Your task to perform on an android device: turn off translation in the chrome app Image 0: 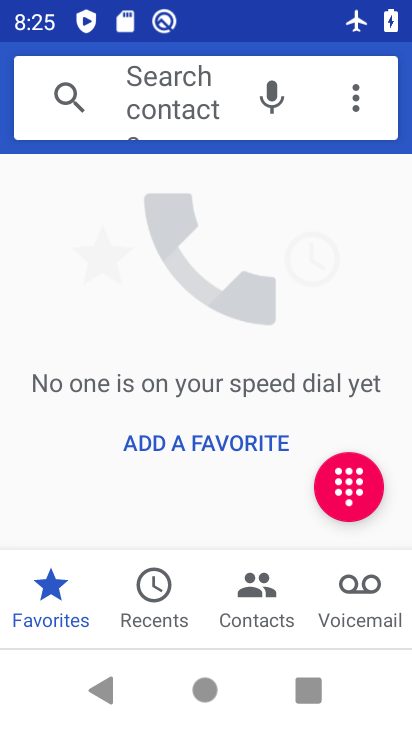
Step 0: press home button
Your task to perform on an android device: turn off translation in the chrome app Image 1: 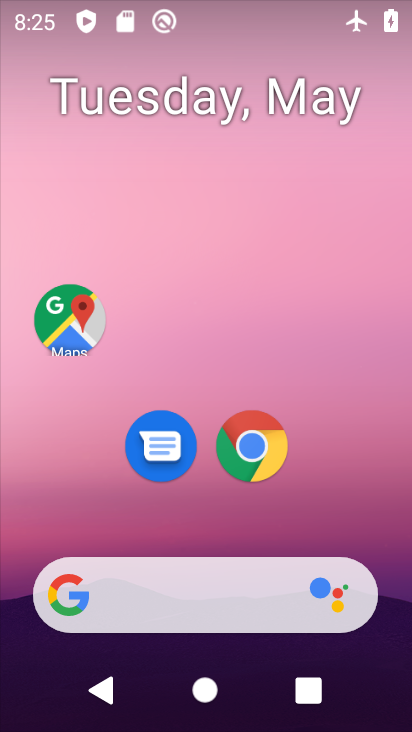
Step 1: drag from (377, 535) to (377, 220)
Your task to perform on an android device: turn off translation in the chrome app Image 2: 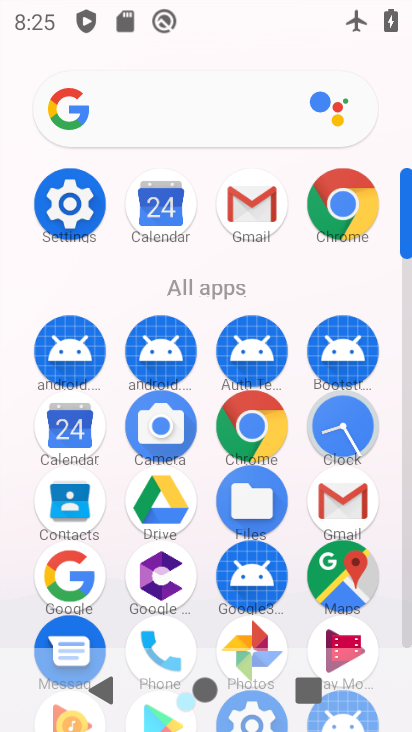
Step 2: click (247, 443)
Your task to perform on an android device: turn off translation in the chrome app Image 3: 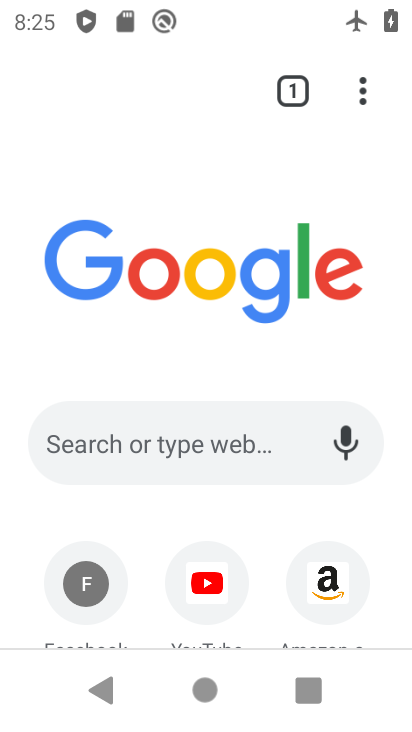
Step 3: click (360, 99)
Your task to perform on an android device: turn off translation in the chrome app Image 4: 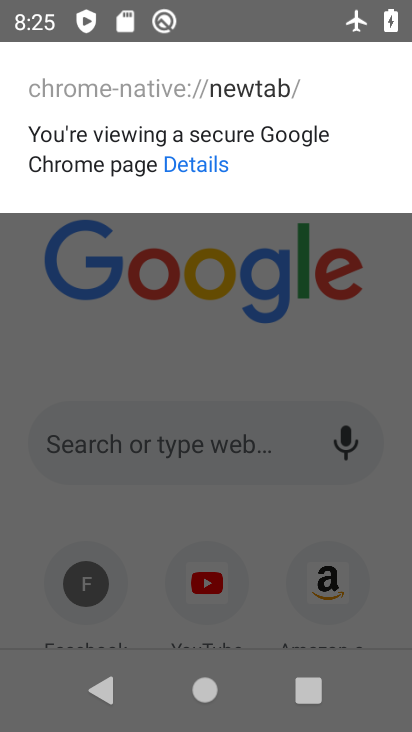
Step 4: click (394, 324)
Your task to perform on an android device: turn off translation in the chrome app Image 5: 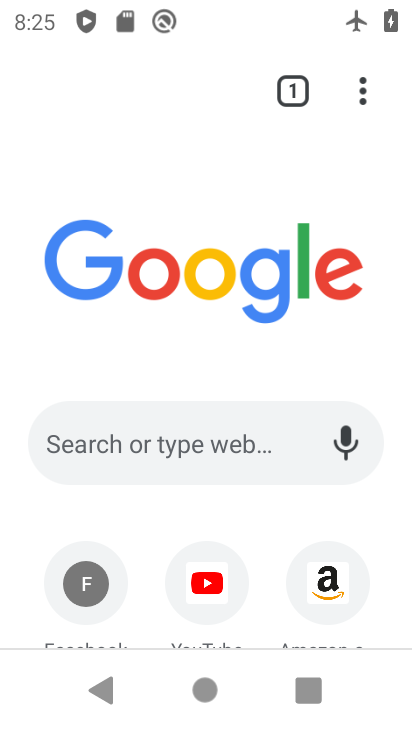
Step 5: click (363, 93)
Your task to perform on an android device: turn off translation in the chrome app Image 6: 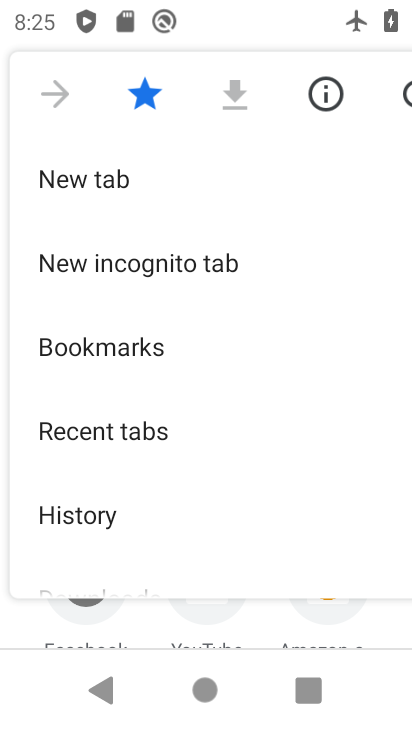
Step 6: drag from (281, 527) to (309, 408)
Your task to perform on an android device: turn off translation in the chrome app Image 7: 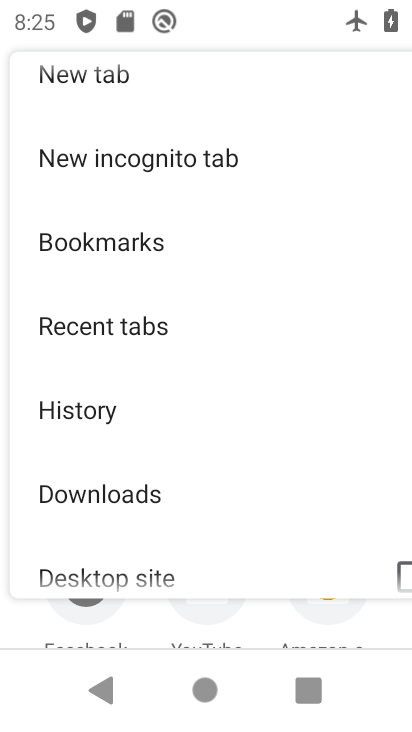
Step 7: drag from (313, 495) to (328, 371)
Your task to perform on an android device: turn off translation in the chrome app Image 8: 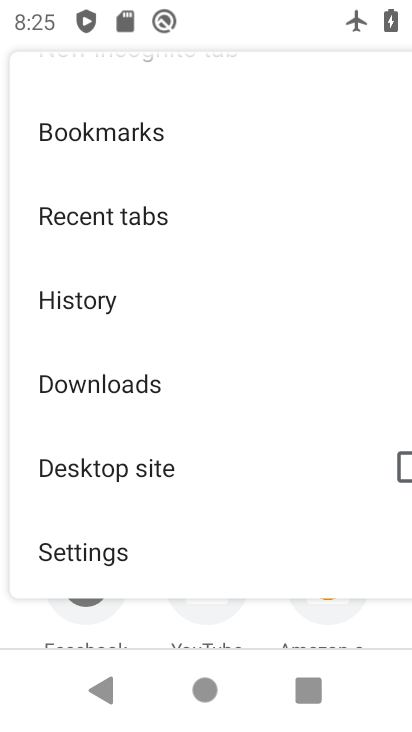
Step 8: drag from (314, 500) to (309, 396)
Your task to perform on an android device: turn off translation in the chrome app Image 9: 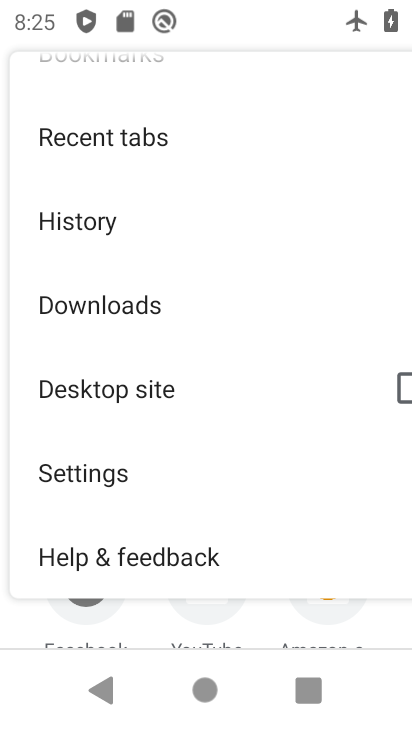
Step 9: drag from (302, 480) to (313, 394)
Your task to perform on an android device: turn off translation in the chrome app Image 10: 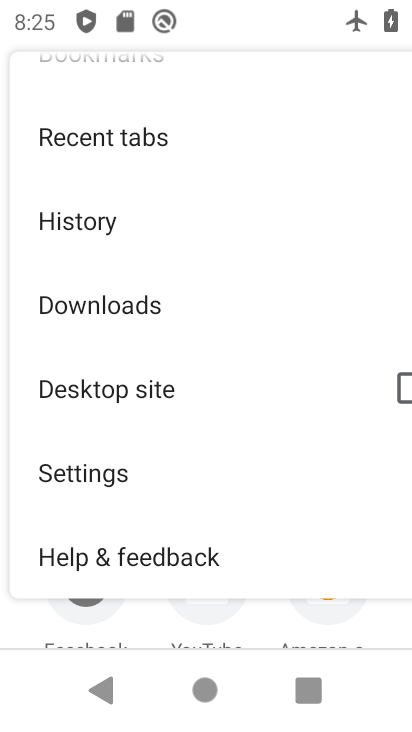
Step 10: click (224, 481)
Your task to perform on an android device: turn off translation in the chrome app Image 11: 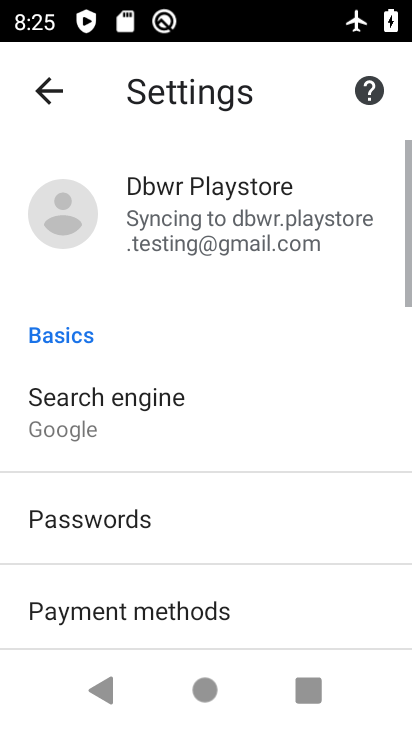
Step 11: drag from (321, 543) to (343, 412)
Your task to perform on an android device: turn off translation in the chrome app Image 12: 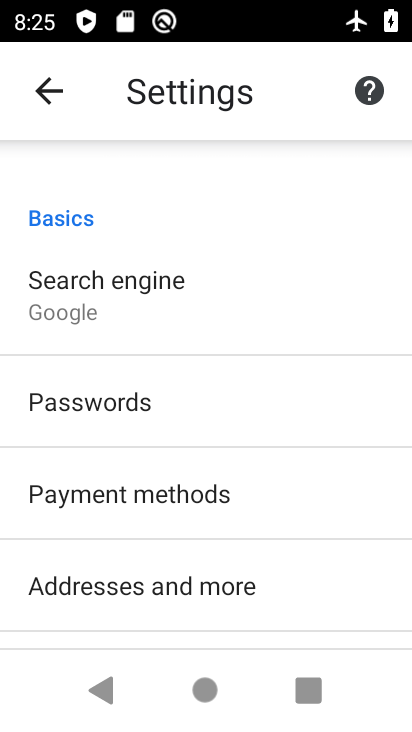
Step 12: drag from (321, 557) to (334, 435)
Your task to perform on an android device: turn off translation in the chrome app Image 13: 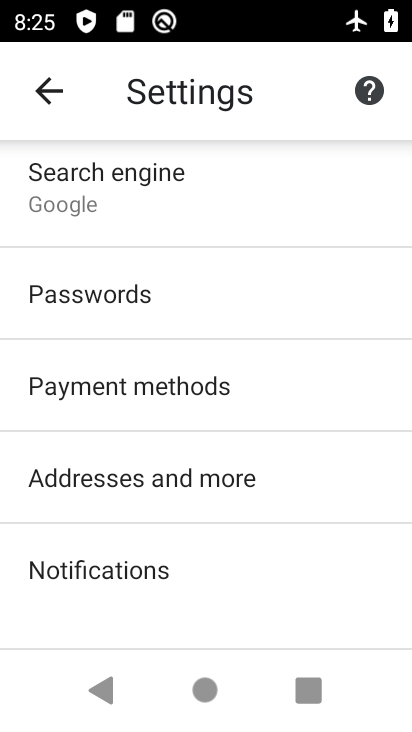
Step 13: drag from (329, 595) to (330, 472)
Your task to perform on an android device: turn off translation in the chrome app Image 14: 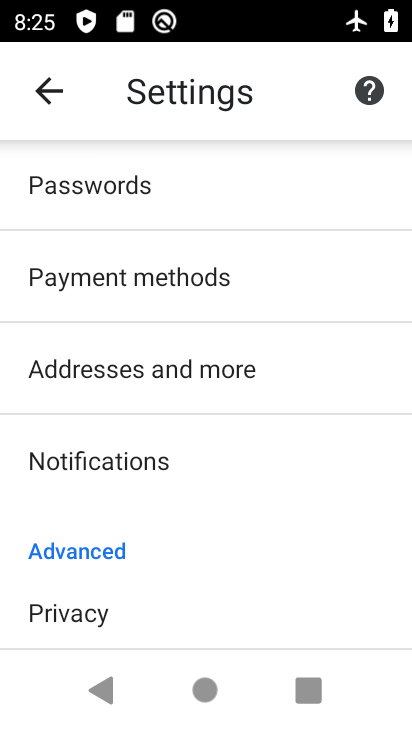
Step 14: drag from (330, 586) to (344, 483)
Your task to perform on an android device: turn off translation in the chrome app Image 15: 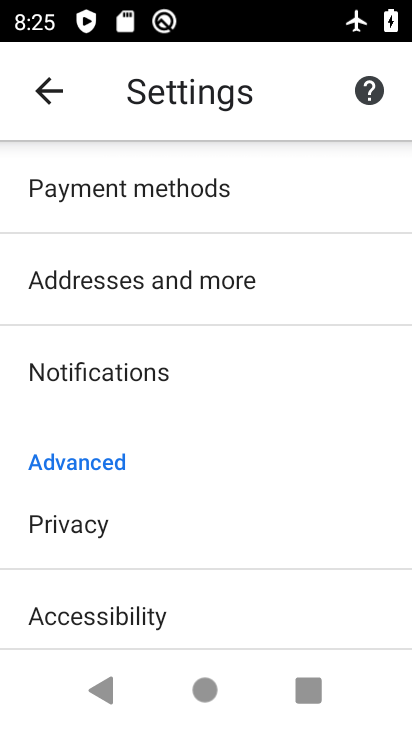
Step 15: drag from (365, 603) to (366, 497)
Your task to perform on an android device: turn off translation in the chrome app Image 16: 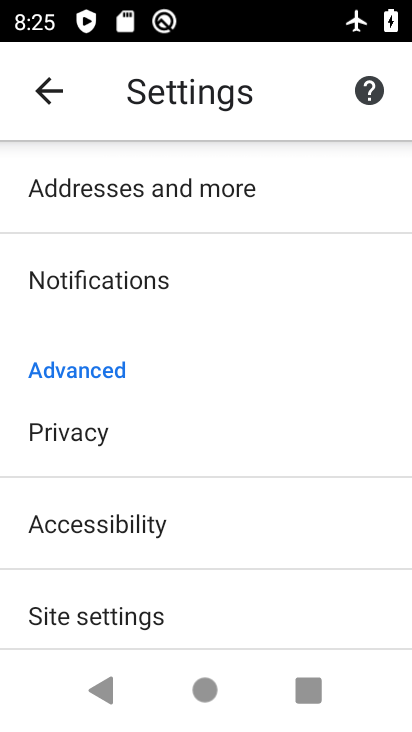
Step 16: drag from (349, 622) to (355, 511)
Your task to perform on an android device: turn off translation in the chrome app Image 17: 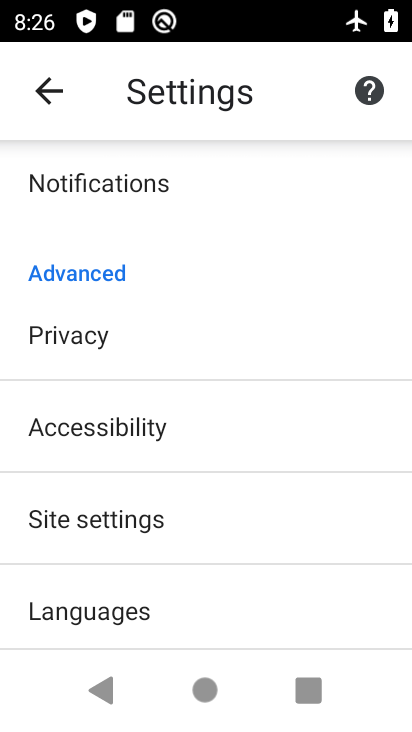
Step 17: drag from (324, 607) to (332, 497)
Your task to perform on an android device: turn off translation in the chrome app Image 18: 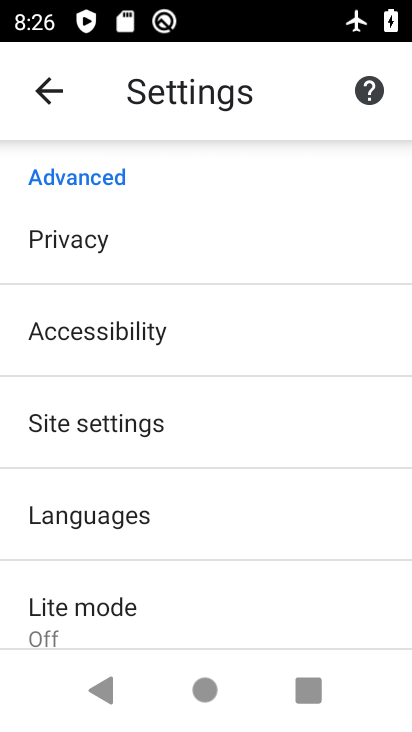
Step 18: click (292, 522)
Your task to perform on an android device: turn off translation in the chrome app Image 19: 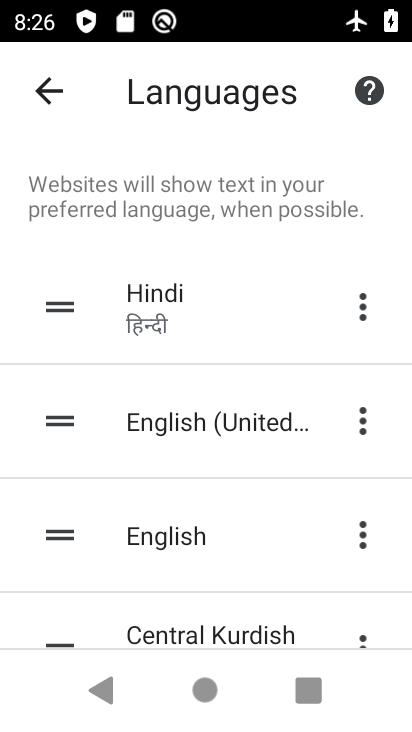
Step 19: drag from (290, 599) to (307, 467)
Your task to perform on an android device: turn off translation in the chrome app Image 20: 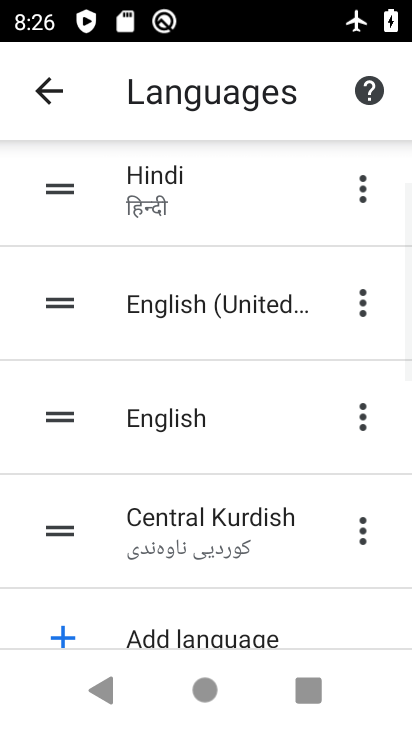
Step 20: drag from (314, 609) to (318, 489)
Your task to perform on an android device: turn off translation in the chrome app Image 21: 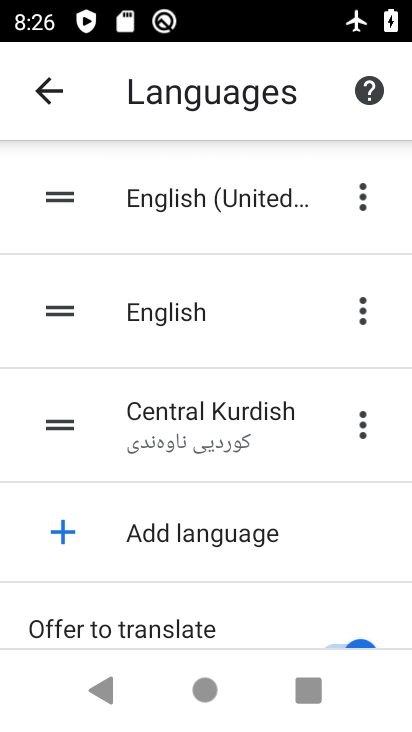
Step 21: drag from (315, 616) to (327, 511)
Your task to perform on an android device: turn off translation in the chrome app Image 22: 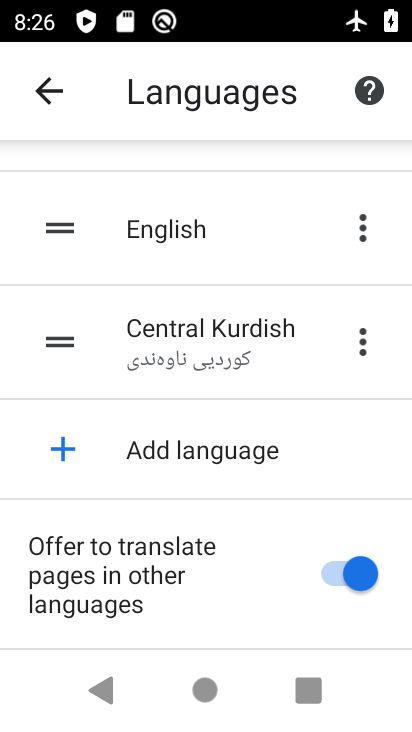
Step 22: click (372, 581)
Your task to perform on an android device: turn off translation in the chrome app Image 23: 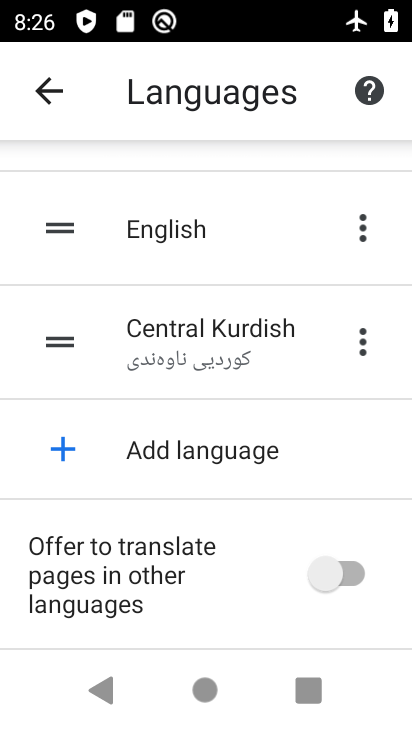
Step 23: task complete